Your task to perform on an android device: Turn off the flashlight Image 0: 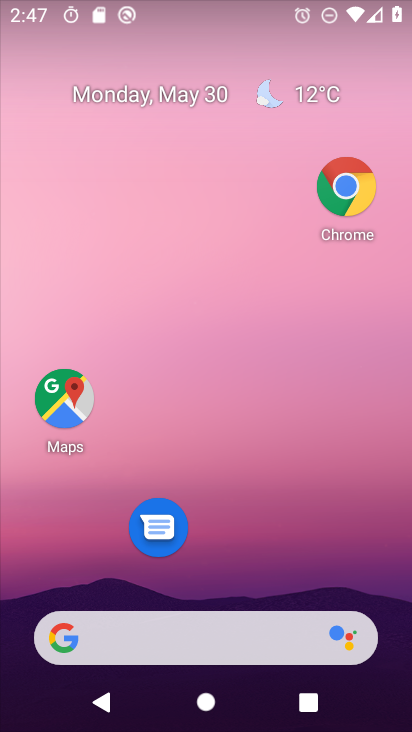
Step 0: drag from (262, 301) to (292, 122)
Your task to perform on an android device: Turn off the flashlight Image 1: 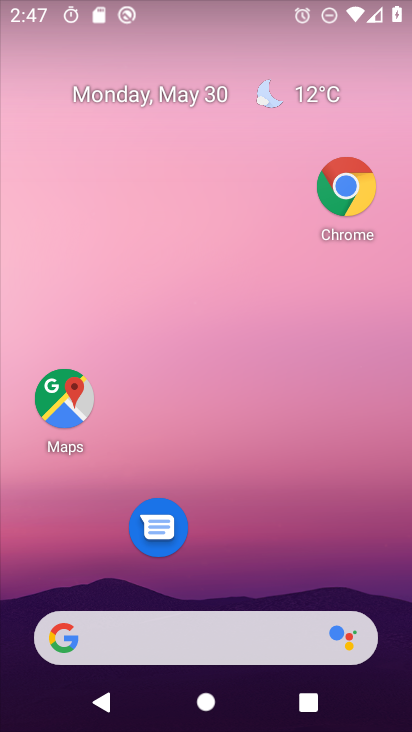
Step 1: drag from (231, 597) to (244, 116)
Your task to perform on an android device: Turn off the flashlight Image 2: 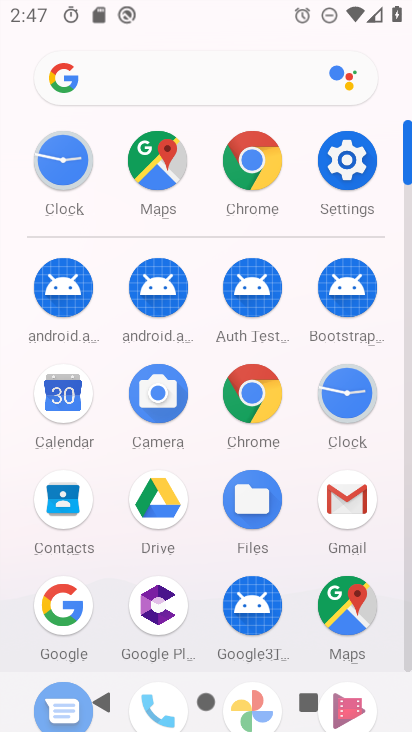
Step 2: click (344, 163)
Your task to perform on an android device: Turn off the flashlight Image 3: 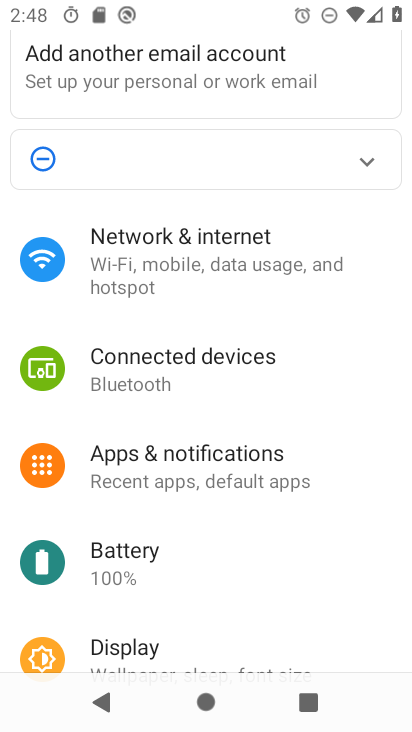
Step 3: click (109, 161)
Your task to perform on an android device: Turn off the flashlight Image 4: 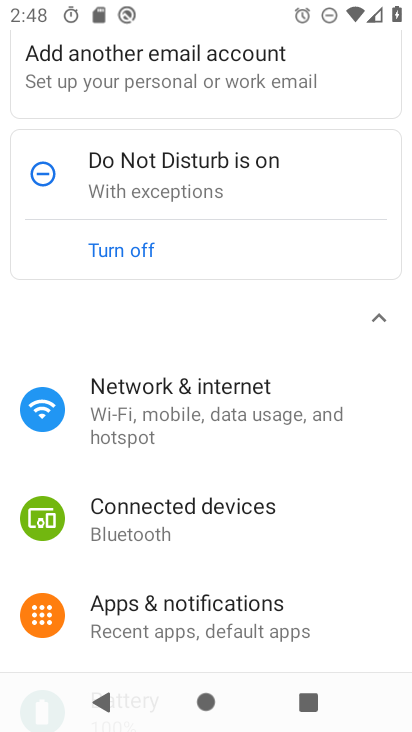
Step 4: drag from (240, 201) to (180, 536)
Your task to perform on an android device: Turn off the flashlight Image 5: 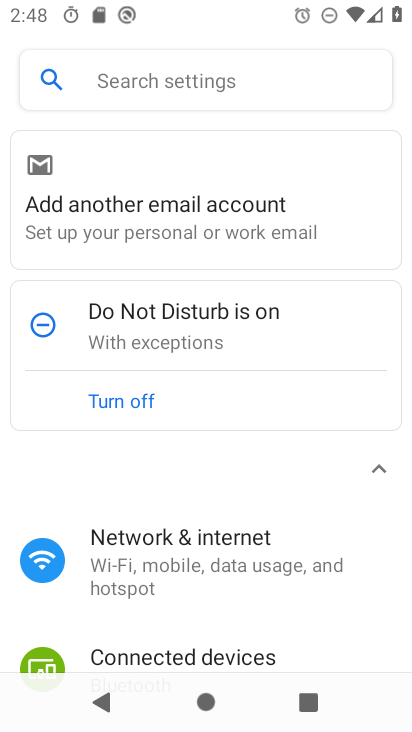
Step 5: click (149, 66)
Your task to perform on an android device: Turn off the flashlight Image 6: 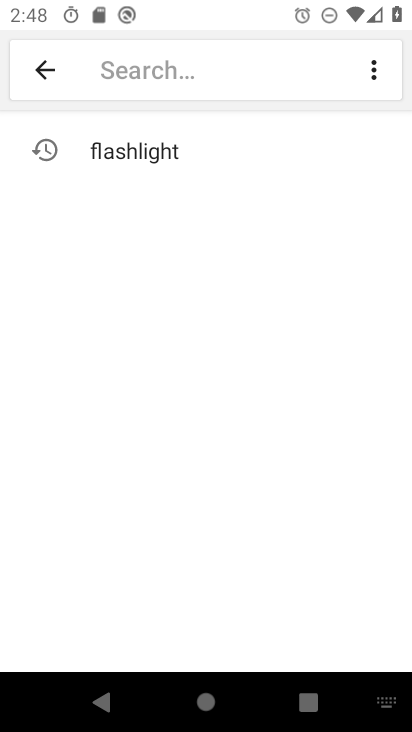
Step 6: click (199, 136)
Your task to perform on an android device: Turn off the flashlight Image 7: 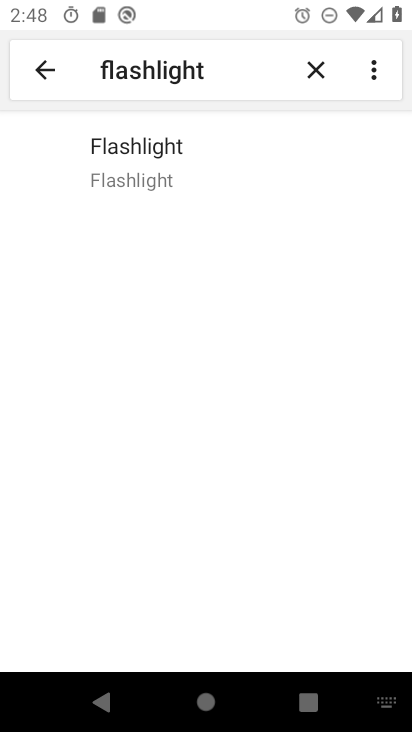
Step 7: task complete